Your task to perform on an android device: Open notification settings Image 0: 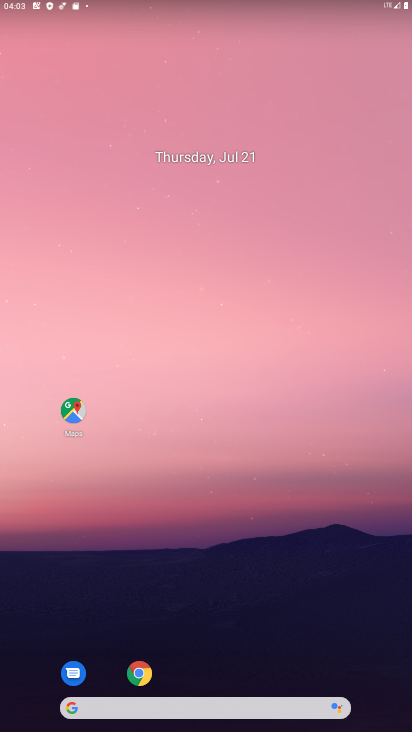
Step 0: drag from (244, 637) to (283, 102)
Your task to perform on an android device: Open notification settings Image 1: 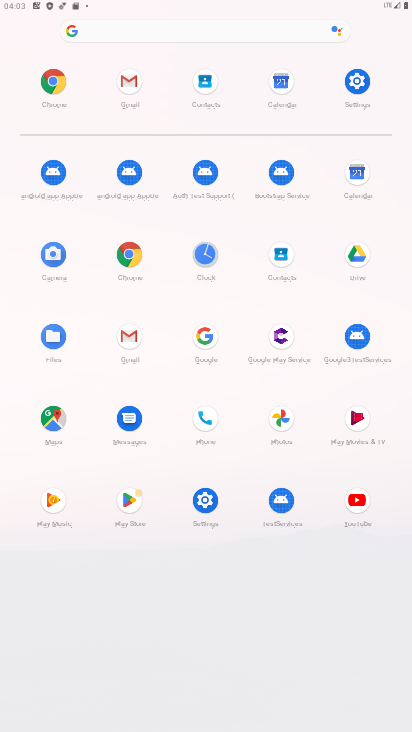
Step 1: click (208, 511)
Your task to perform on an android device: Open notification settings Image 2: 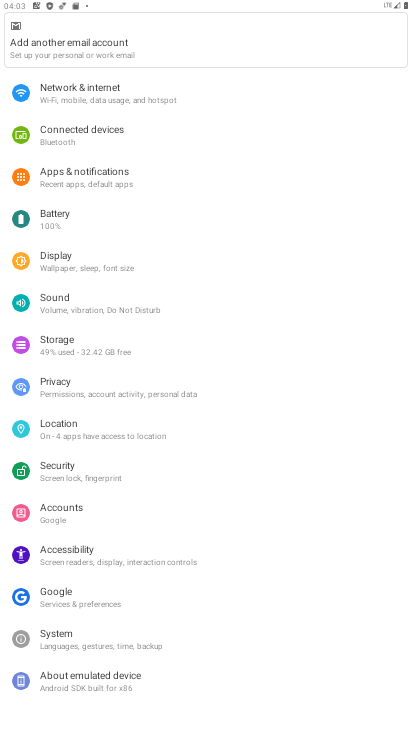
Step 2: click (93, 179)
Your task to perform on an android device: Open notification settings Image 3: 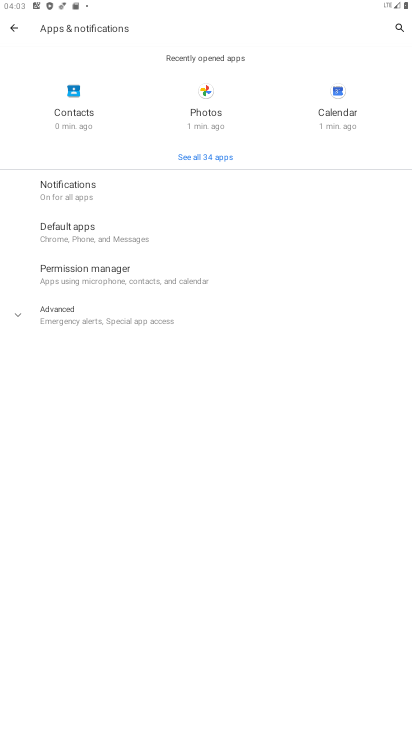
Step 3: click (93, 179)
Your task to perform on an android device: Open notification settings Image 4: 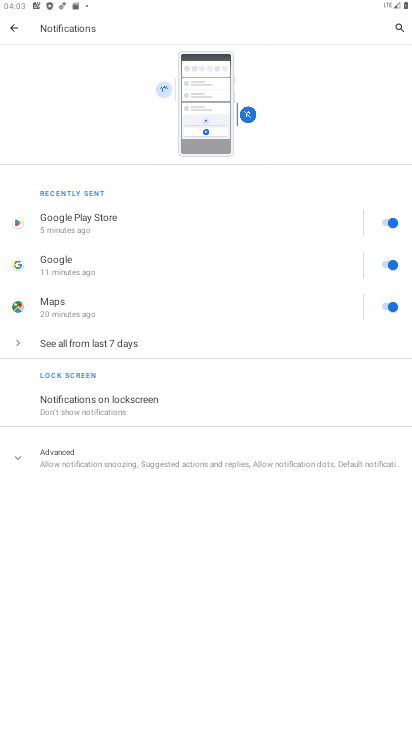
Step 4: task complete